Your task to perform on an android device: turn on priority inbox in the gmail app Image 0: 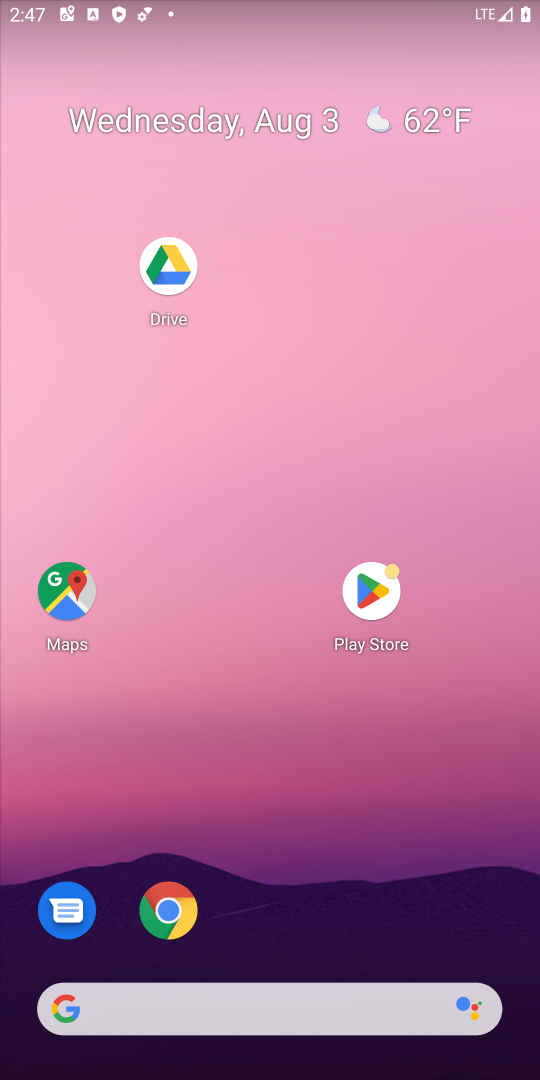
Step 0: drag from (413, 988) to (366, 212)
Your task to perform on an android device: turn on priority inbox in the gmail app Image 1: 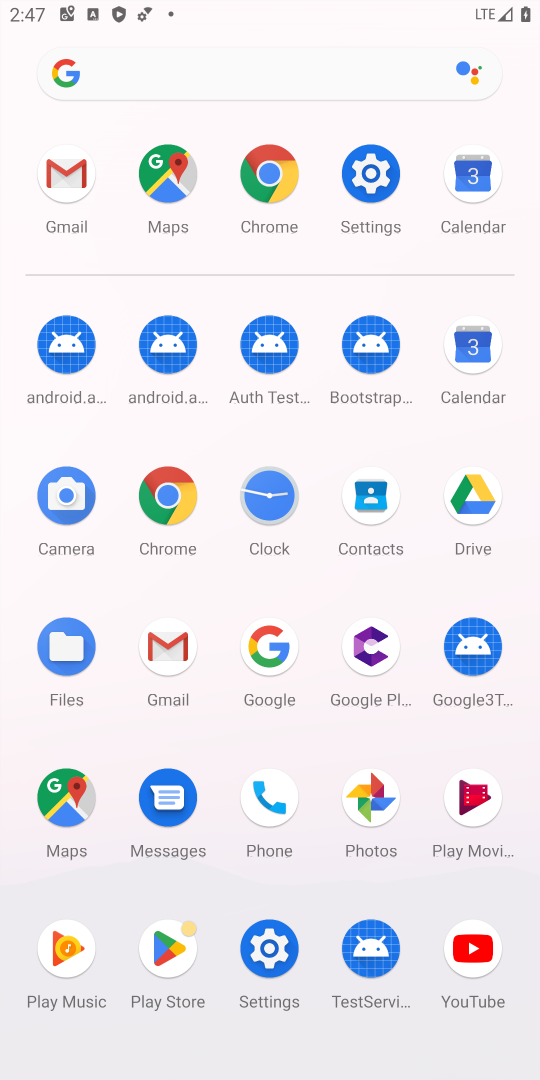
Step 1: click (174, 655)
Your task to perform on an android device: turn on priority inbox in the gmail app Image 2: 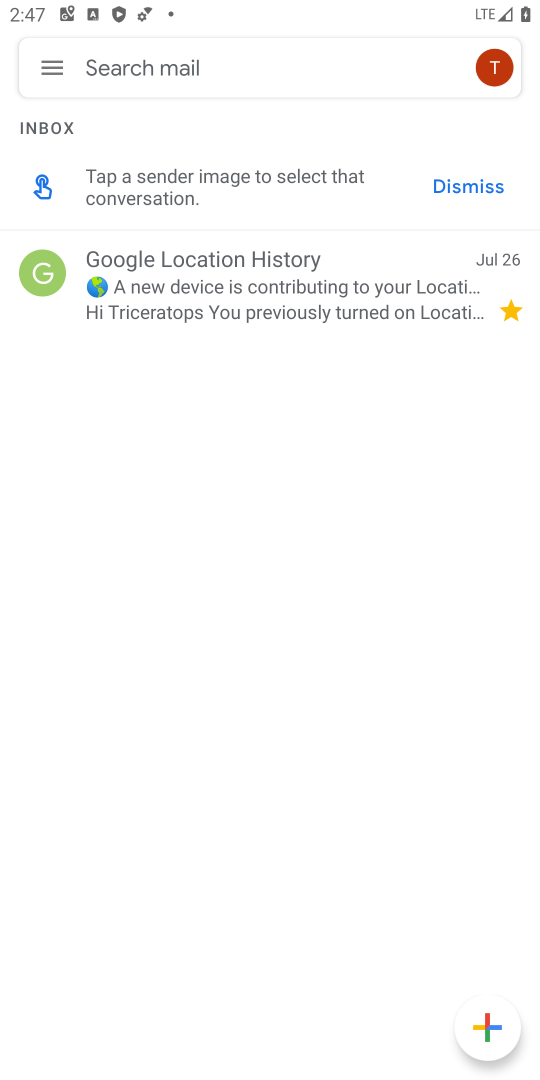
Step 2: click (60, 60)
Your task to perform on an android device: turn on priority inbox in the gmail app Image 3: 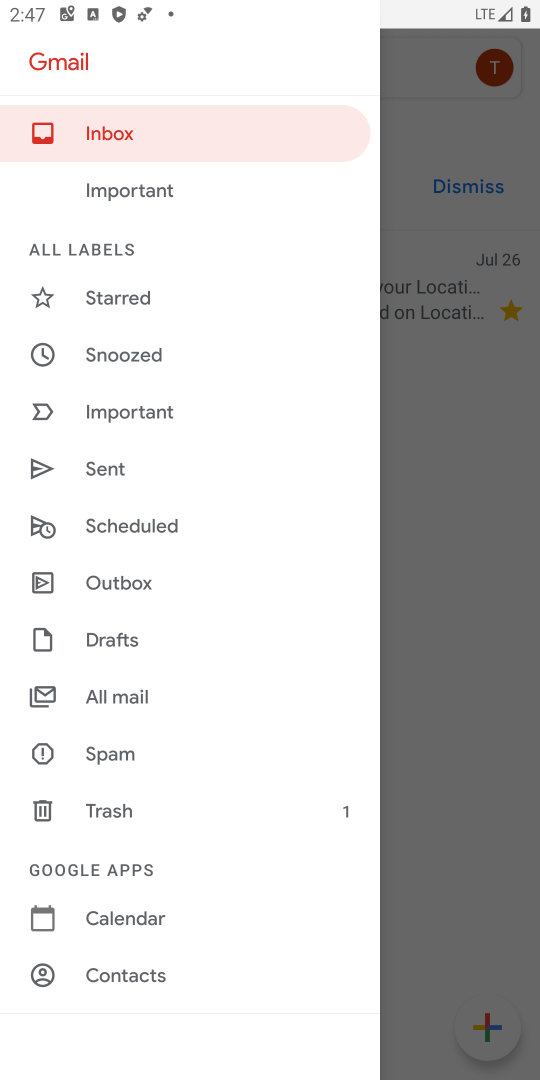
Step 3: drag from (147, 998) to (49, 166)
Your task to perform on an android device: turn on priority inbox in the gmail app Image 4: 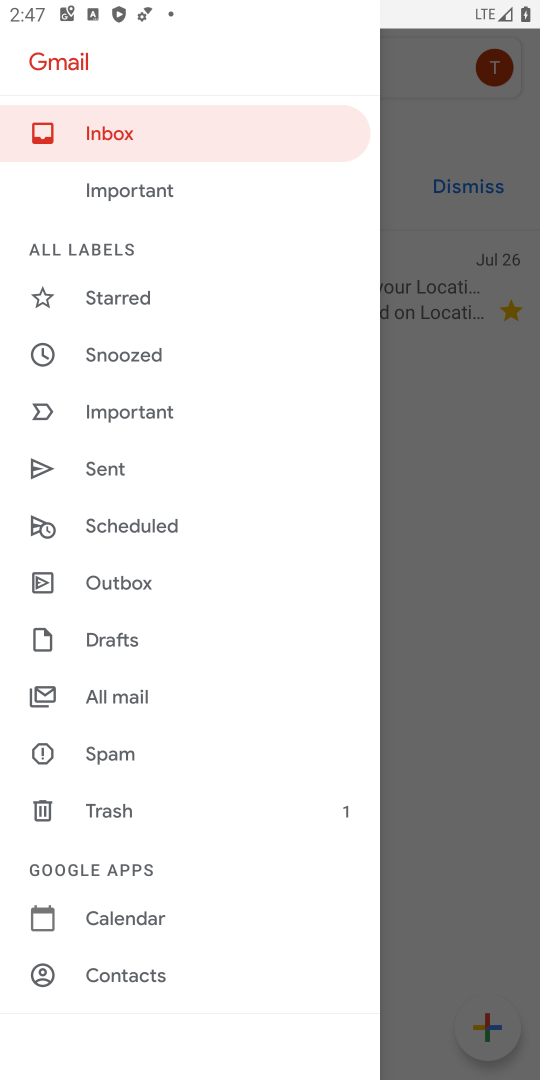
Step 4: drag from (110, 754) to (57, 4)
Your task to perform on an android device: turn on priority inbox in the gmail app Image 5: 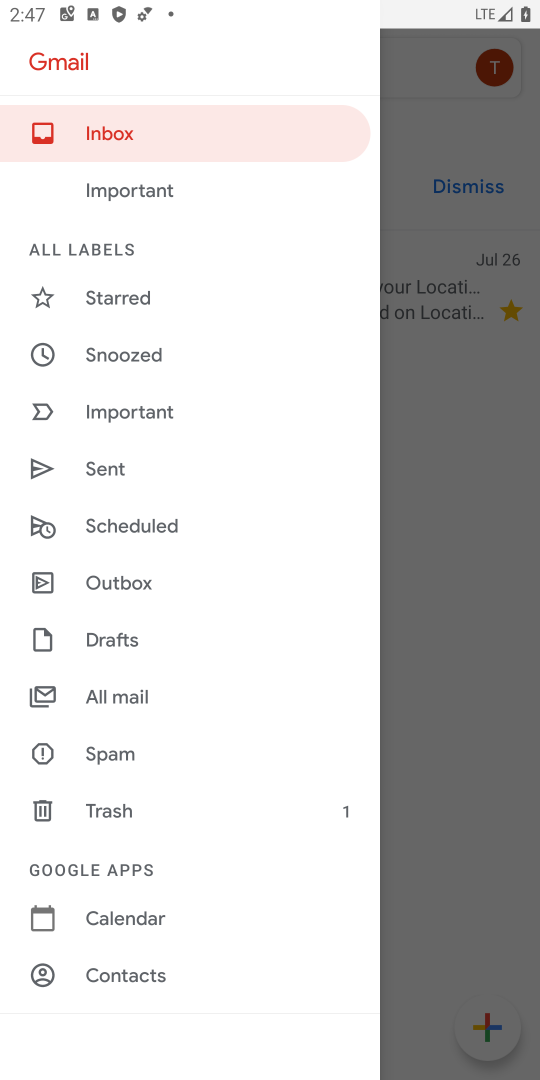
Step 5: drag from (202, 925) to (197, 310)
Your task to perform on an android device: turn on priority inbox in the gmail app Image 6: 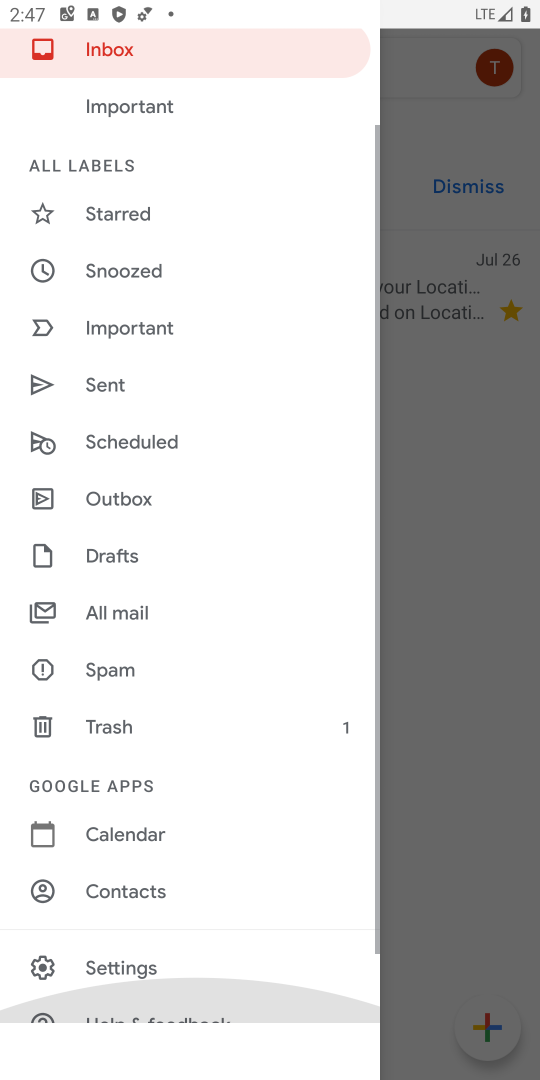
Step 6: click (162, 928)
Your task to perform on an android device: turn on priority inbox in the gmail app Image 7: 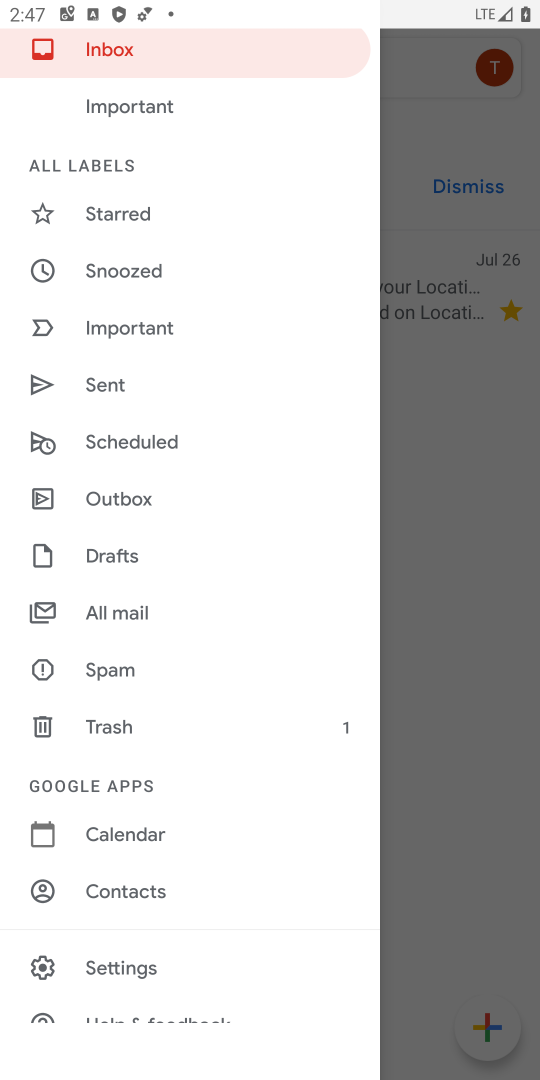
Step 7: click (161, 977)
Your task to perform on an android device: turn on priority inbox in the gmail app Image 8: 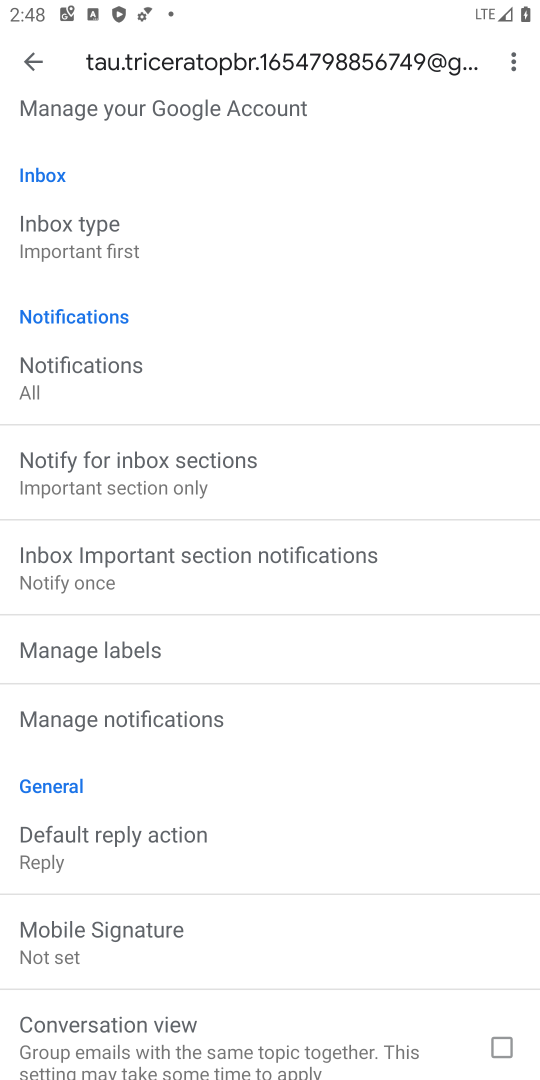
Step 8: click (73, 230)
Your task to perform on an android device: turn on priority inbox in the gmail app Image 9: 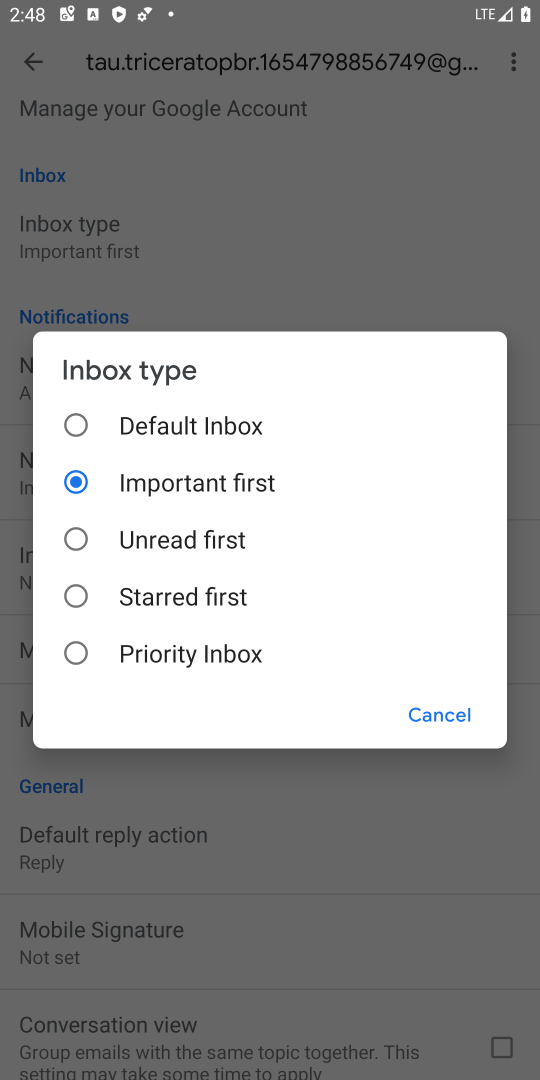
Step 9: click (69, 657)
Your task to perform on an android device: turn on priority inbox in the gmail app Image 10: 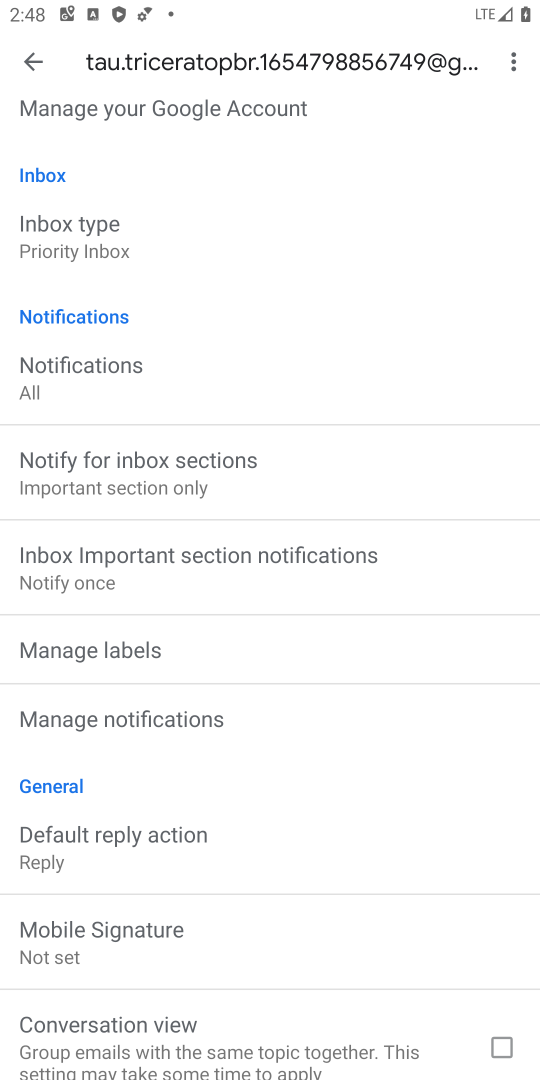
Step 10: task complete